Your task to perform on an android device: Open Chrome and go to settings Image 0: 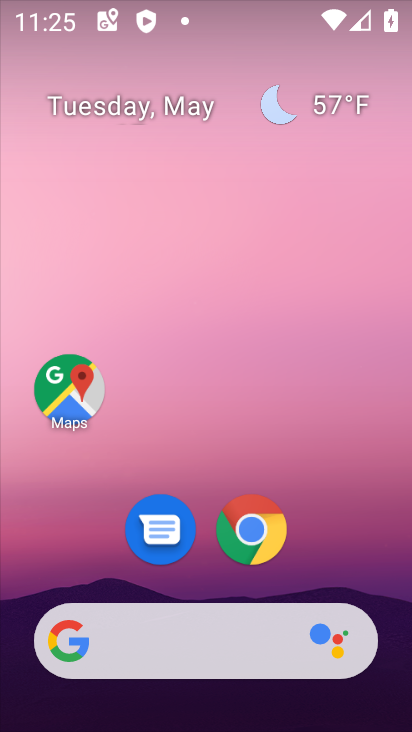
Step 0: click (243, 533)
Your task to perform on an android device: Open Chrome and go to settings Image 1: 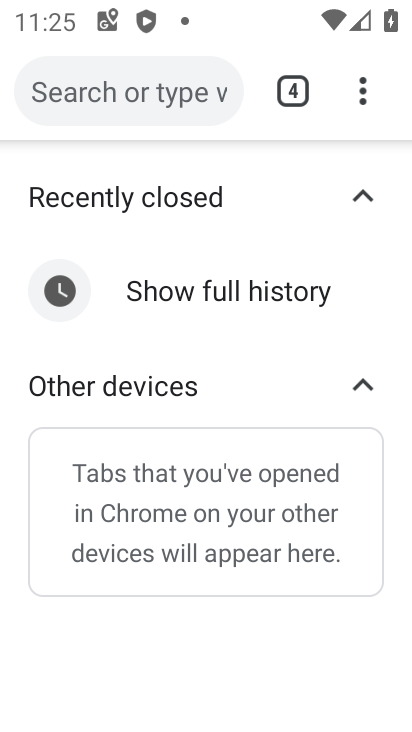
Step 1: click (376, 82)
Your task to perform on an android device: Open Chrome and go to settings Image 2: 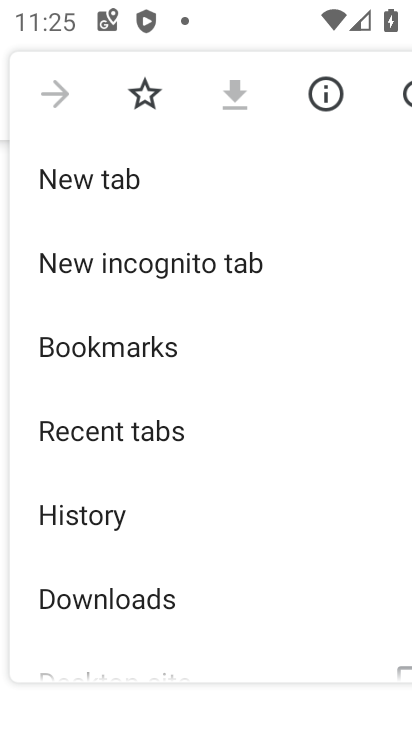
Step 2: drag from (112, 624) to (131, 110)
Your task to perform on an android device: Open Chrome and go to settings Image 3: 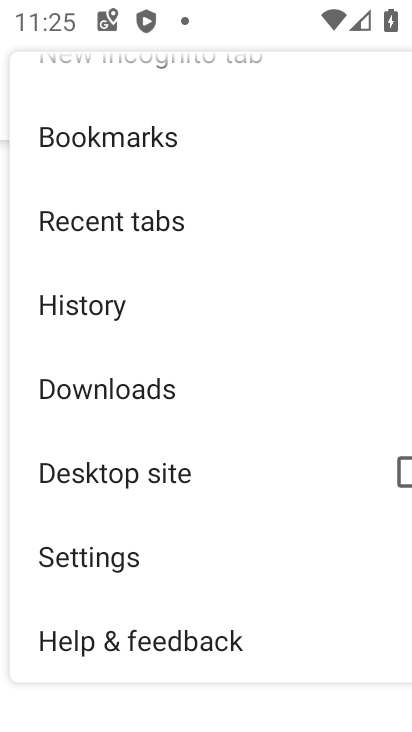
Step 3: click (102, 562)
Your task to perform on an android device: Open Chrome and go to settings Image 4: 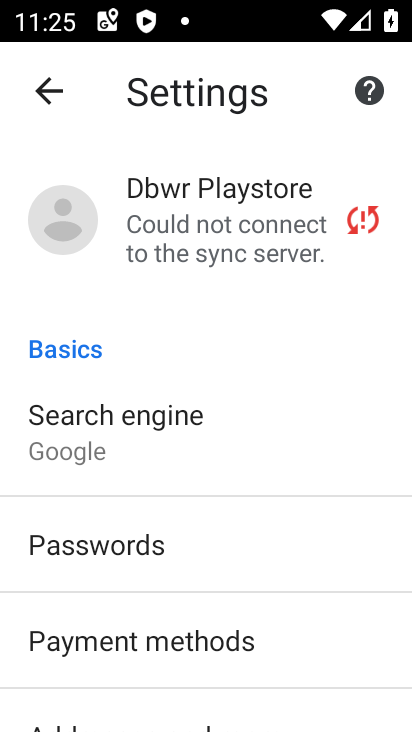
Step 4: task complete